Your task to perform on an android device: Open Chrome and go to the settings page Image 0: 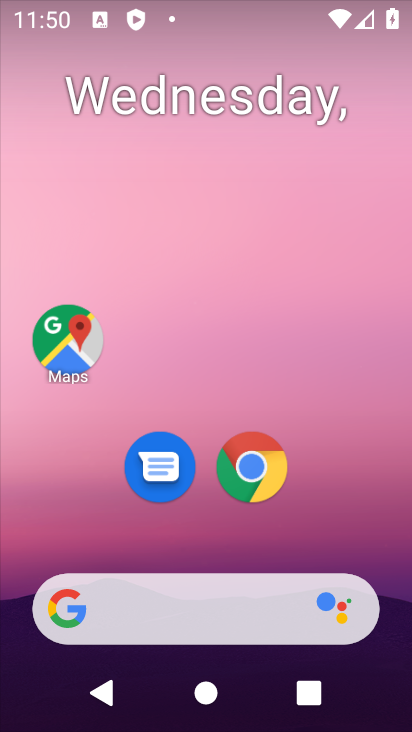
Step 0: click (255, 485)
Your task to perform on an android device: Open Chrome and go to the settings page Image 1: 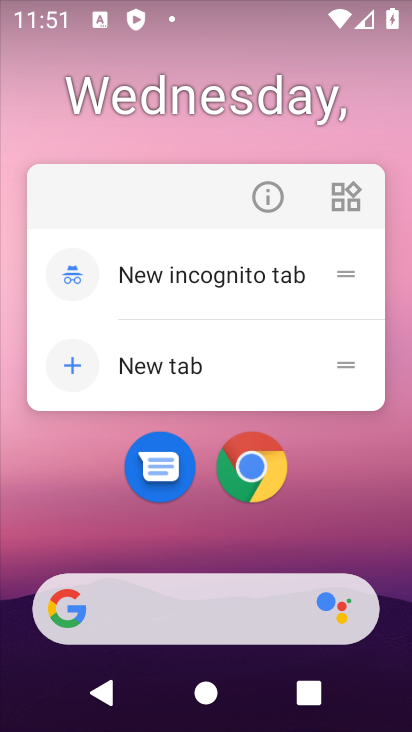
Step 1: click (236, 481)
Your task to perform on an android device: Open Chrome and go to the settings page Image 2: 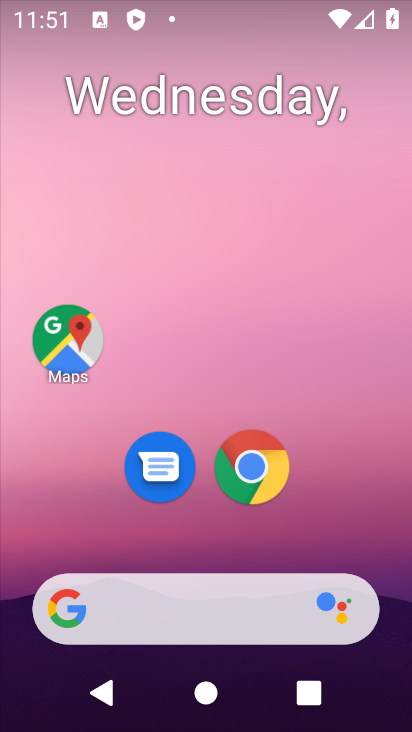
Step 2: click (236, 481)
Your task to perform on an android device: Open Chrome and go to the settings page Image 3: 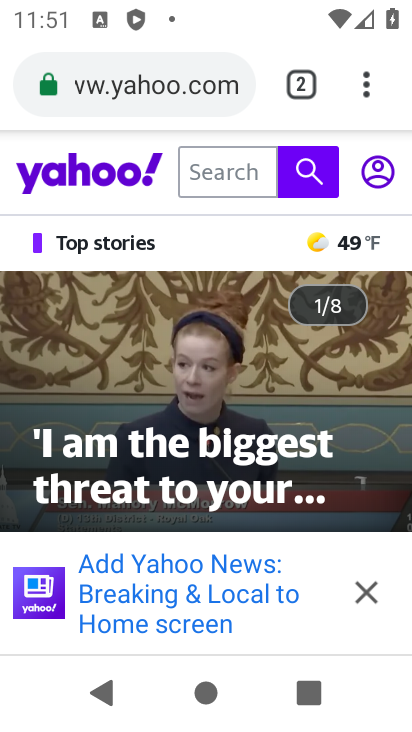
Step 3: task complete